Your task to perform on an android device: Turn off the flashlight Image 0: 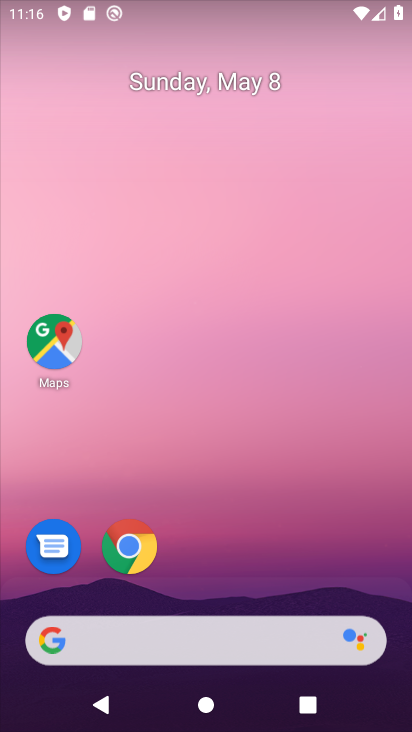
Step 0: drag from (240, 458) to (246, 194)
Your task to perform on an android device: Turn off the flashlight Image 1: 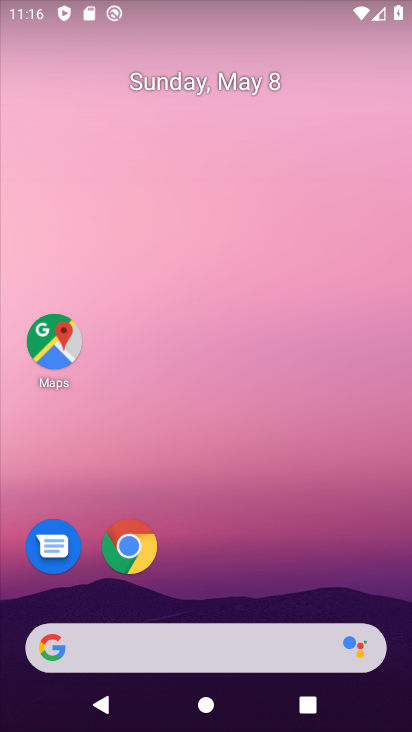
Step 1: drag from (249, 538) to (236, 184)
Your task to perform on an android device: Turn off the flashlight Image 2: 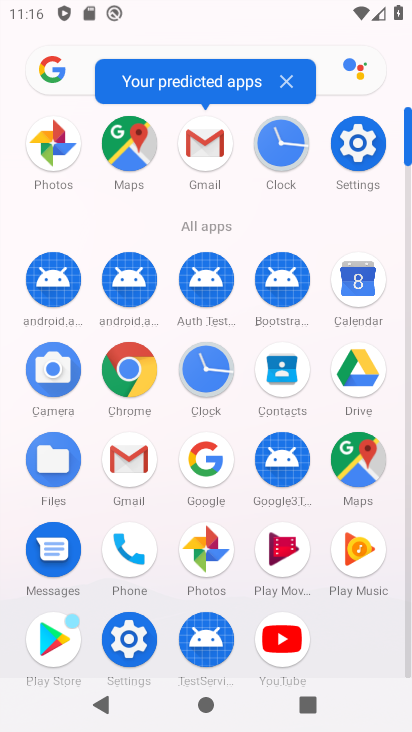
Step 2: click (366, 145)
Your task to perform on an android device: Turn off the flashlight Image 3: 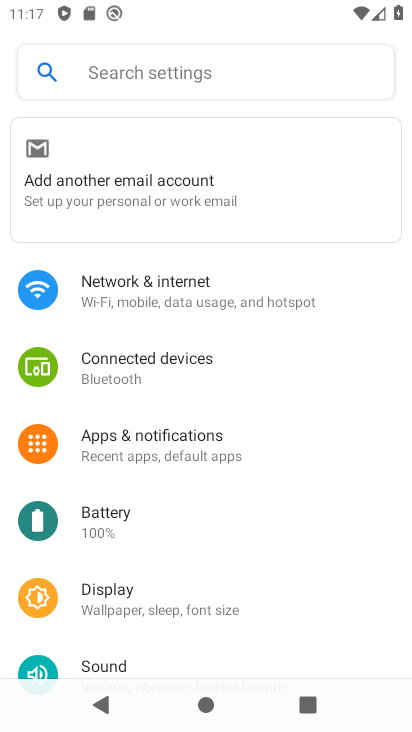
Step 3: click (176, 72)
Your task to perform on an android device: Turn off the flashlight Image 4: 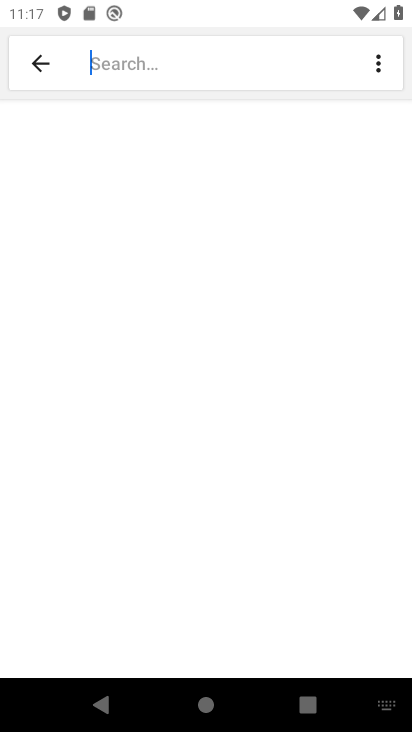
Step 4: type "flashlight"
Your task to perform on an android device: Turn off the flashlight Image 5: 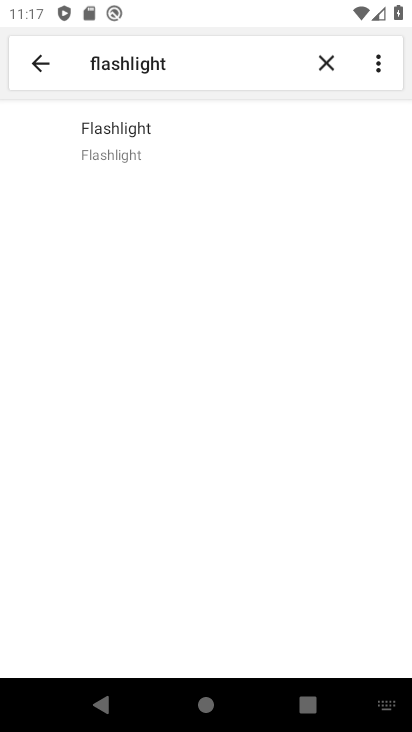
Step 5: click (147, 147)
Your task to perform on an android device: Turn off the flashlight Image 6: 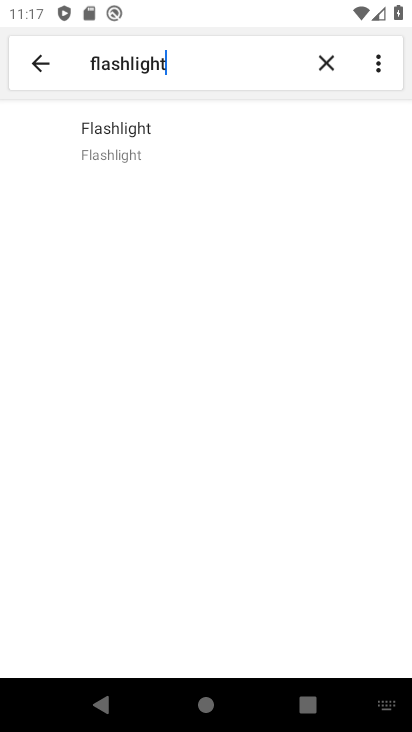
Step 6: click (151, 147)
Your task to perform on an android device: Turn off the flashlight Image 7: 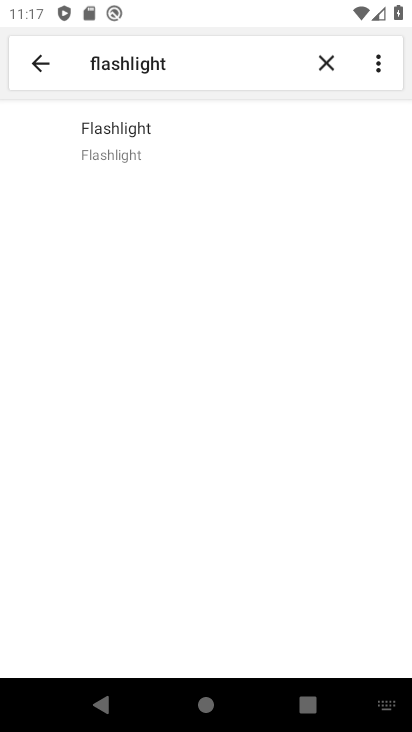
Step 7: task complete